Your task to perform on an android device: Open Google Maps and go to "Timeline" Image 0: 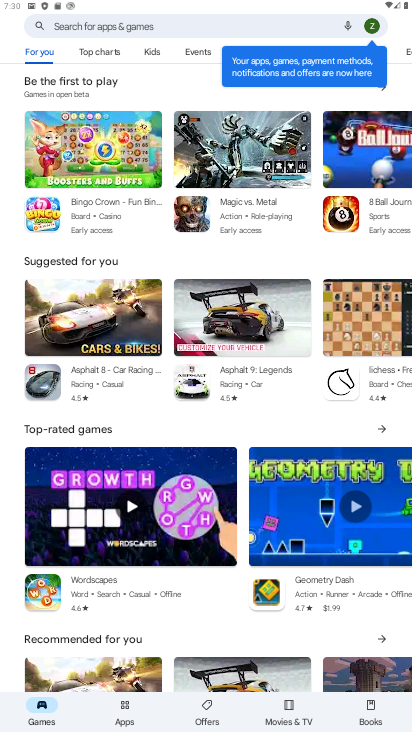
Step 0: drag from (183, 574) to (269, 70)
Your task to perform on an android device: Open Google Maps and go to "Timeline" Image 1: 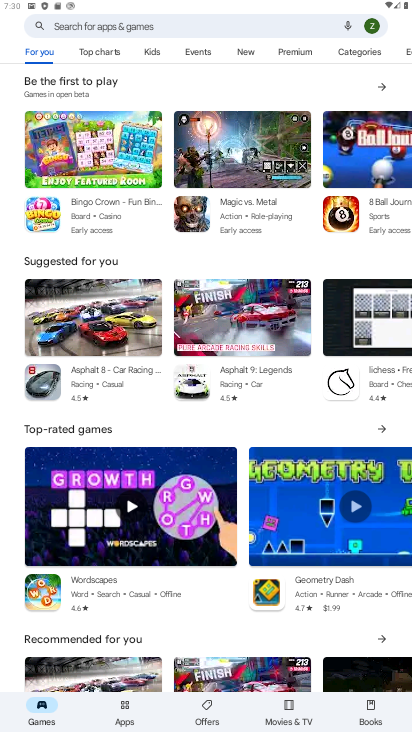
Step 1: press home button
Your task to perform on an android device: Open Google Maps and go to "Timeline" Image 2: 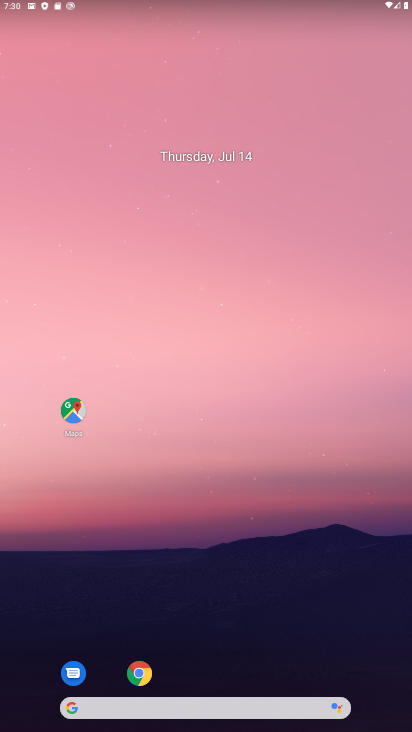
Step 2: drag from (214, 590) to (405, 220)
Your task to perform on an android device: Open Google Maps and go to "Timeline" Image 3: 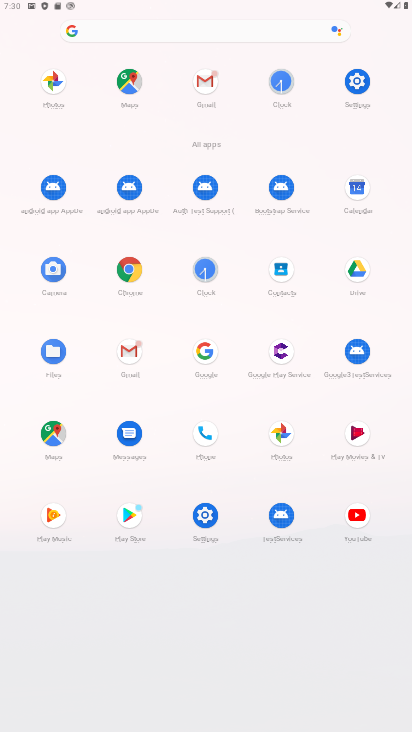
Step 3: click (55, 433)
Your task to perform on an android device: Open Google Maps and go to "Timeline" Image 4: 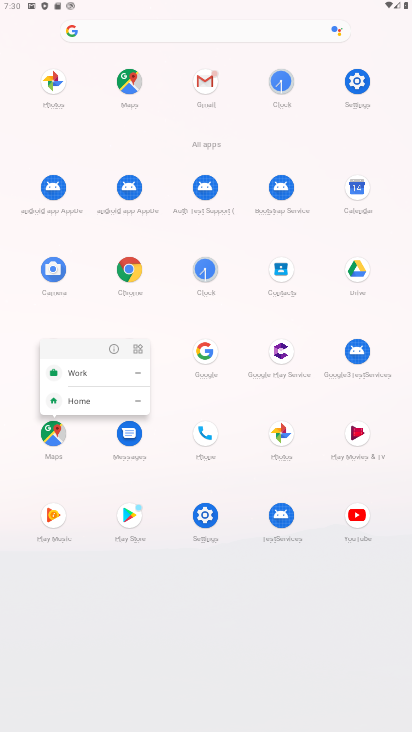
Step 4: click (112, 348)
Your task to perform on an android device: Open Google Maps and go to "Timeline" Image 5: 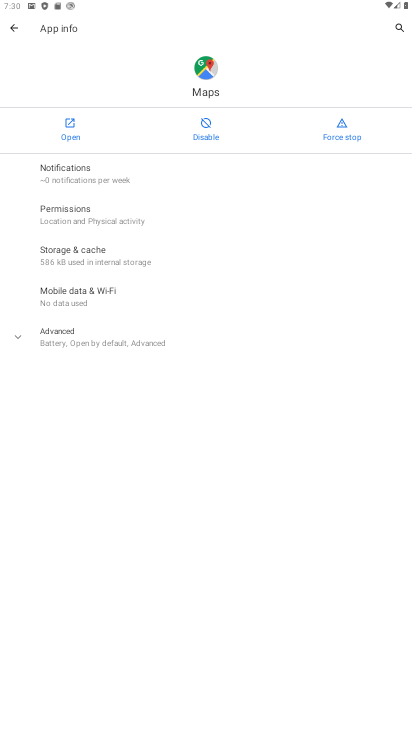
Step 5: click (66, 119)
Your task to perform on an android device: Open Google Maps and go to "Timeline" Image 6: 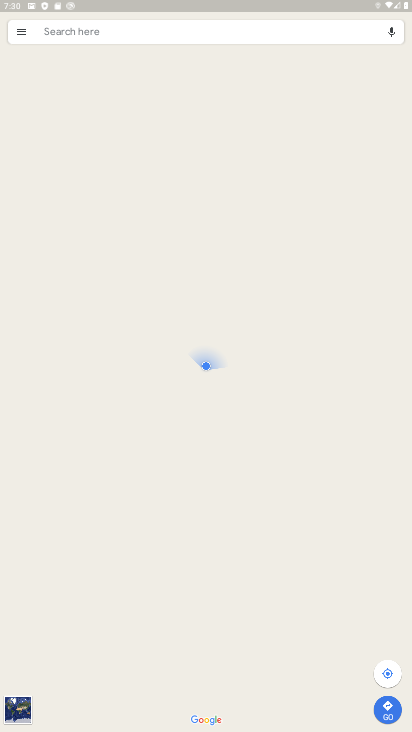
Step 6: click (24, 32)
Your task to perform on an android device: Open Google Maps and go to "Timeline" Image 7: 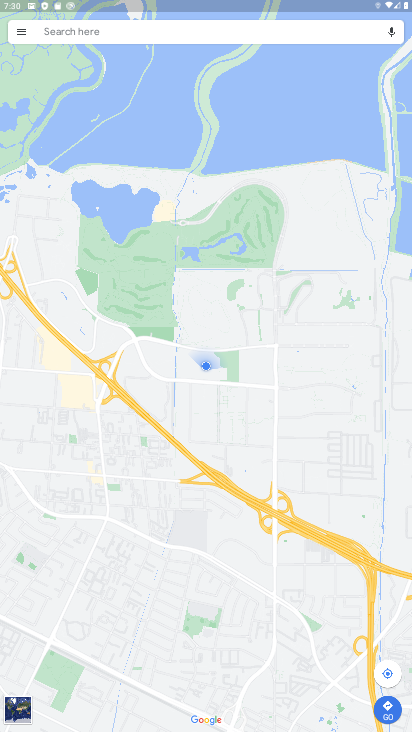
Step 7: click (17, 32)
Your task to perform on an android device: Open Google Maps and go to "Timeline" Image 8: 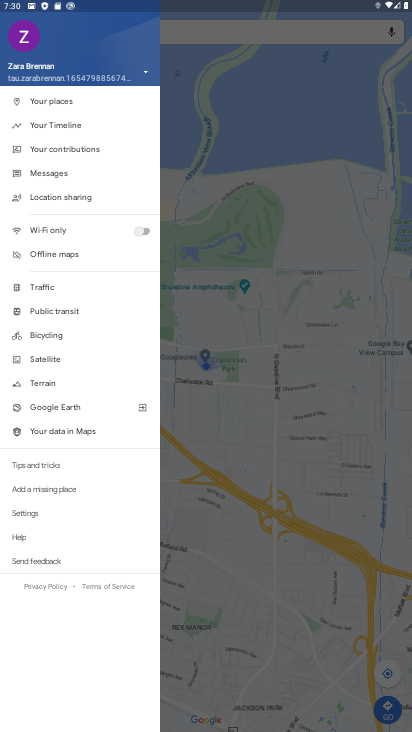
Step 8: click (71, 118)
Your task to perform on an android device: Open Google Maps and go to "Timeline" Image 9: 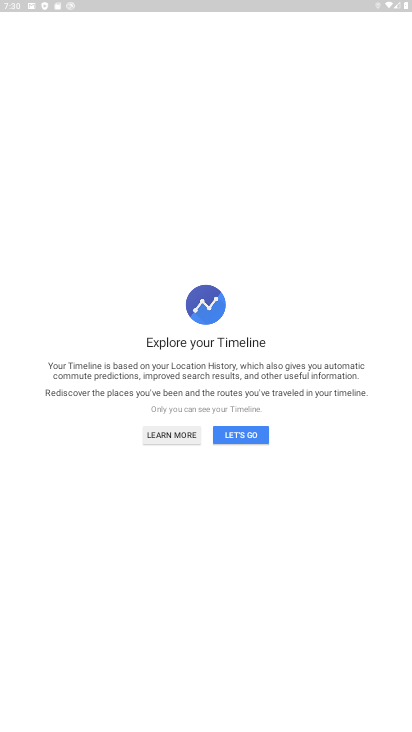
Step 9: task complete